Your task to perform on an android device: check out phone information Image 0: 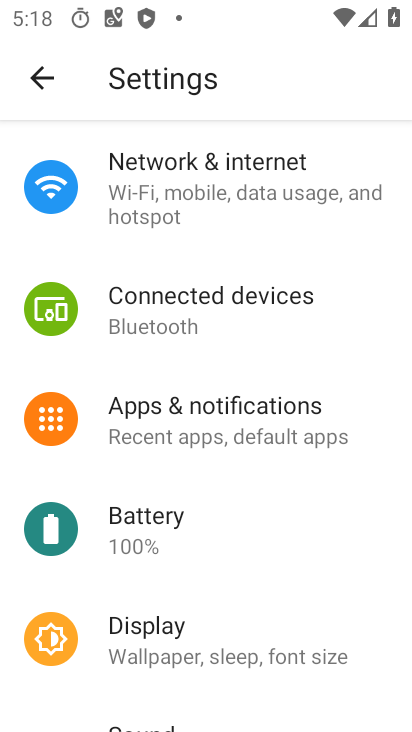
Step 0: drag from (215, 545) to (280, 51)
Your task to perform on an android device: check out phone information Image 1: 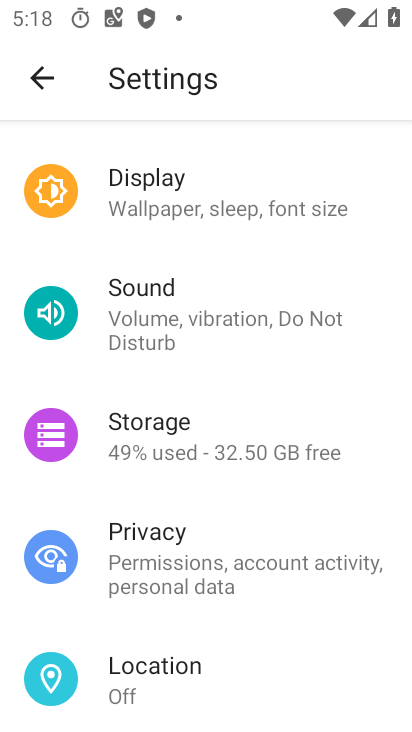
Step 1: drag from (146, 599) to (309, 18)
Your task to perform on an android device: check out phone information Image 2: 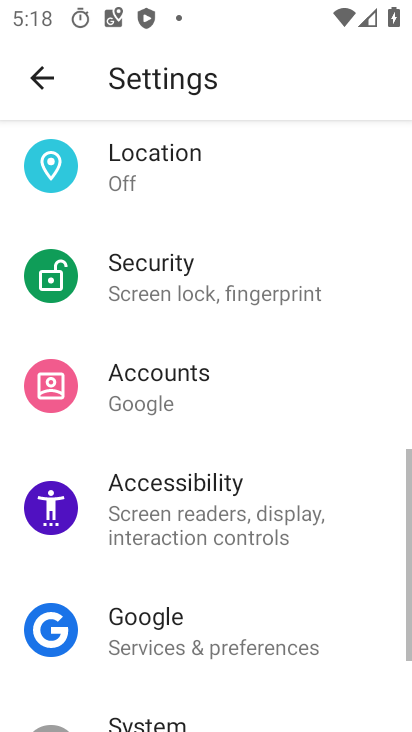
Step 2: drag from (183, 528) to (288, 48)
Your task to perform on an android device: check out phone information Image 3: 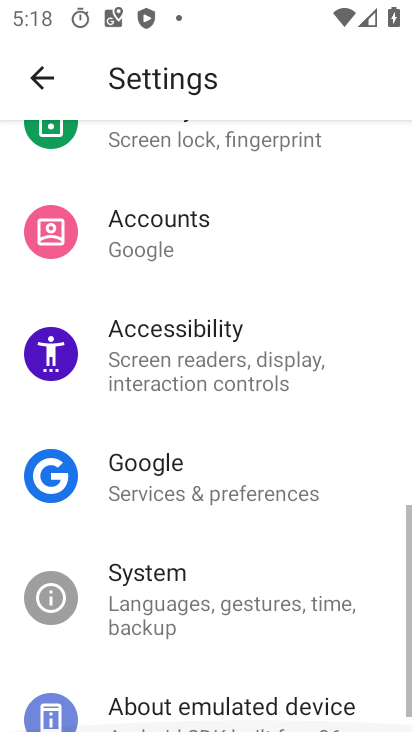
Step 3: drag from (244, 613) to (350, 79)
Your task to perform on an android device: check out phone information Image 4: 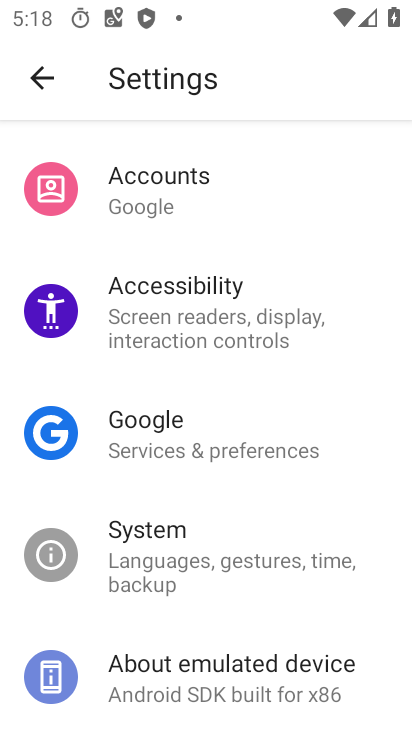
Step 4: click (191, 688)
Your task to perform on an android device: check out phone information Image 5: 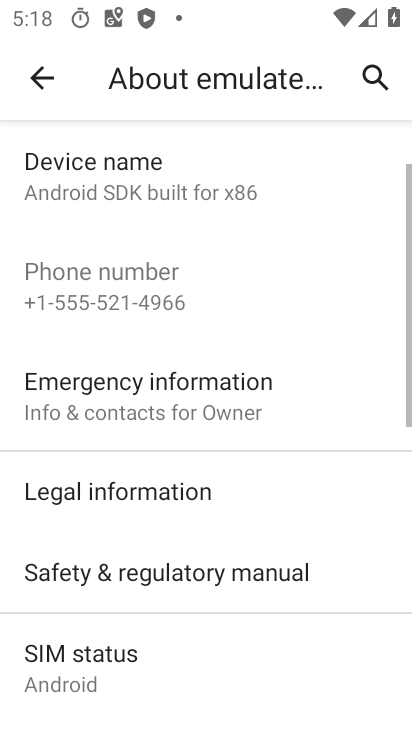
Step 5: task complete